Your task to perform on an android device: turn off airplane mode Image 0: 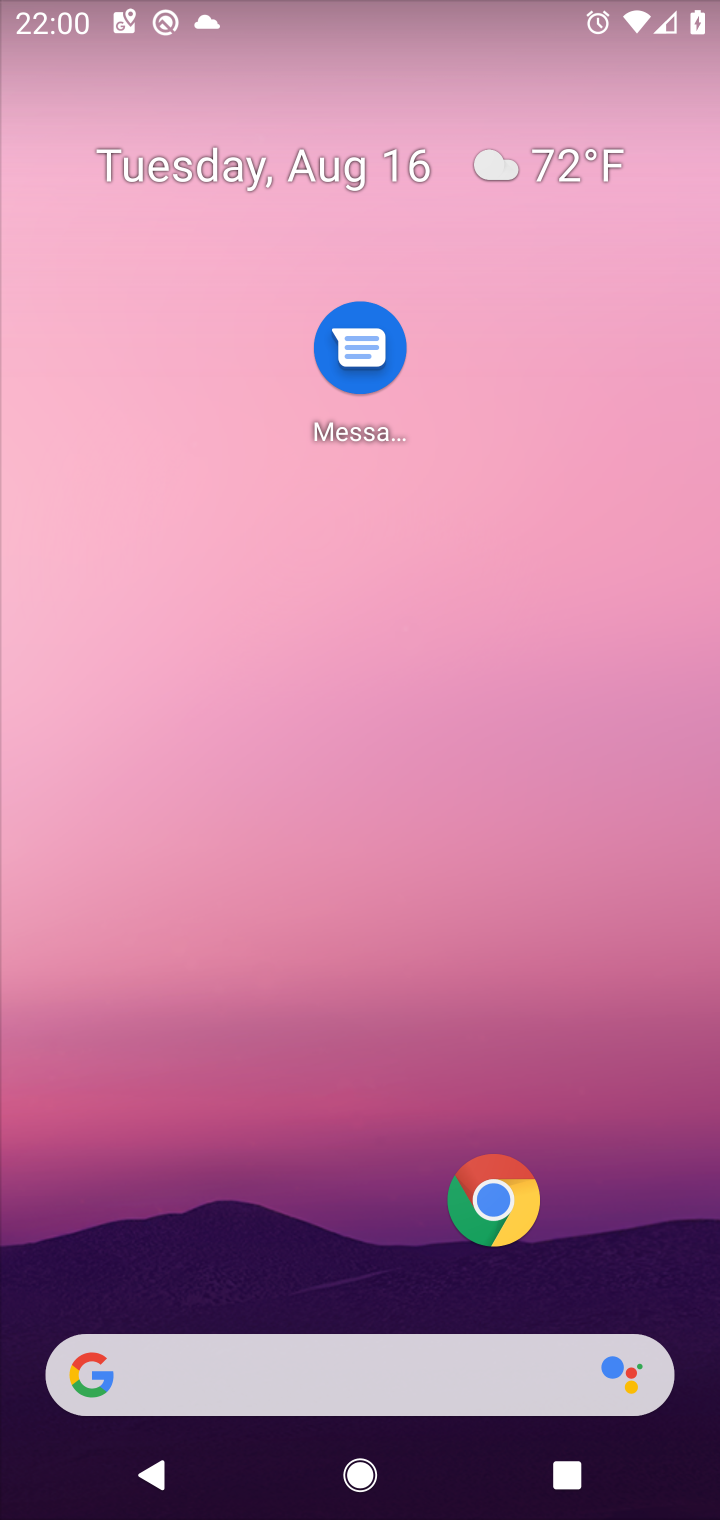
Step 0: drag from (37, 1459) to (407, 746)
Your task to perform on an android device: turn off airplane mode Image 1: 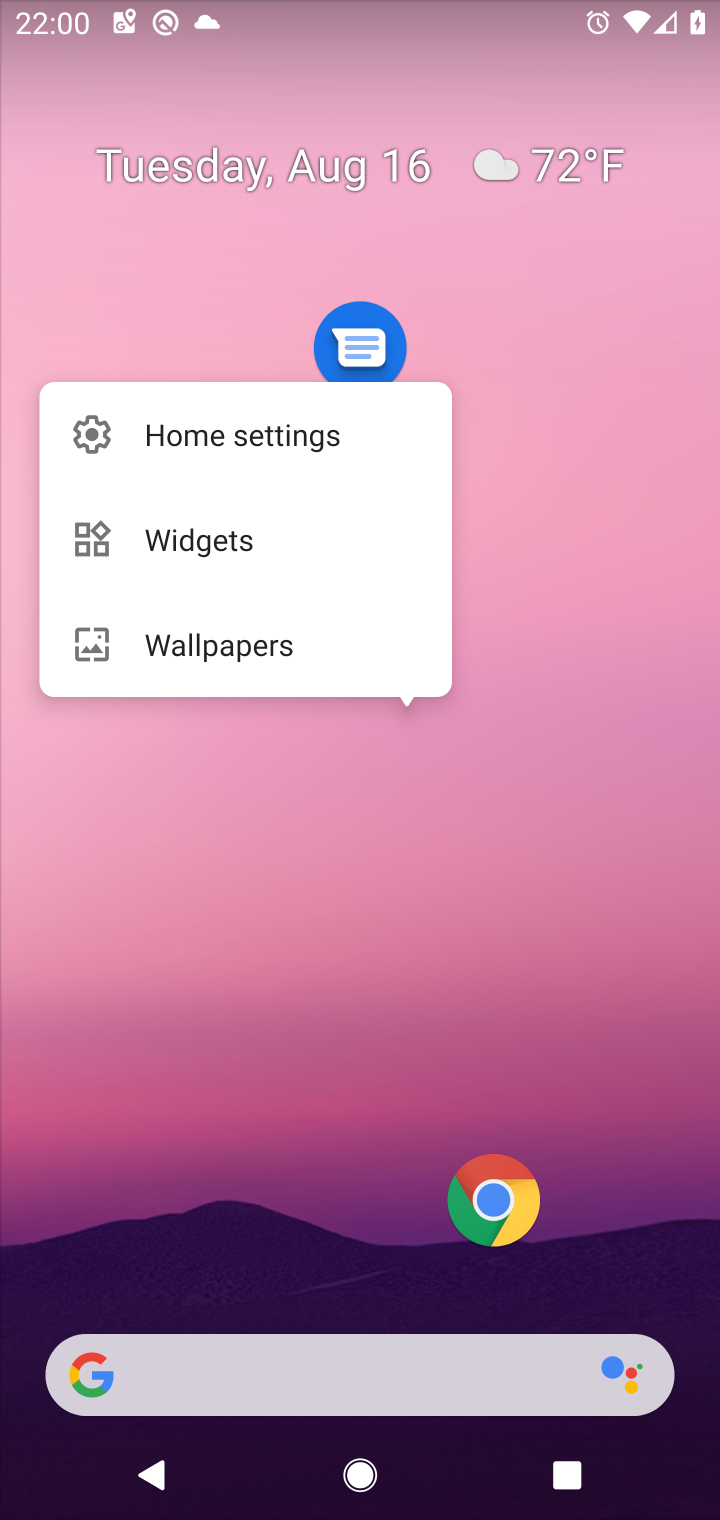
Step 1: task complete